Your task to perform on an android device: Open battery settings Image 0: 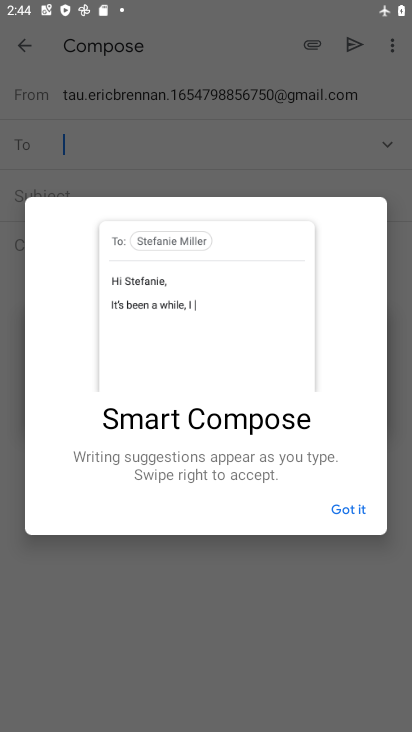
Step 0: press home button
Your task to perform on an android device: Open battery settings Image 1: 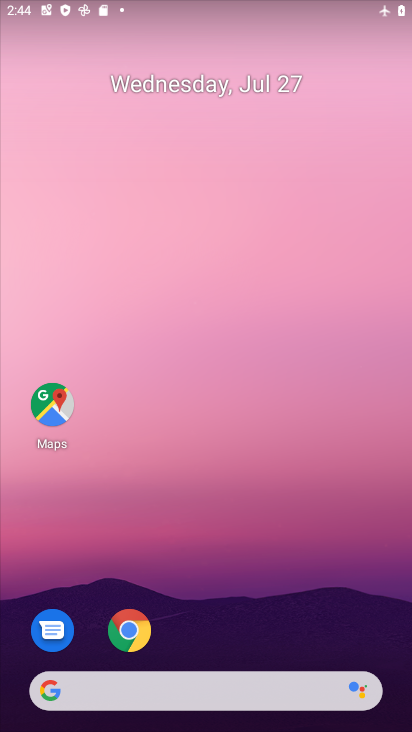
Step 1: drag from (396, 702) to (284, 151)
Your task to perform on an android device: Open battery settings Image 2: 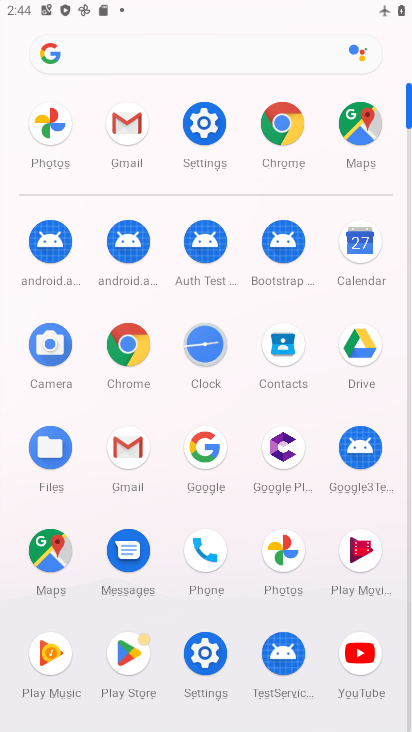
Step 2: click (207, 643)
Your task to perform on an android device: Open battery settings Image 3: 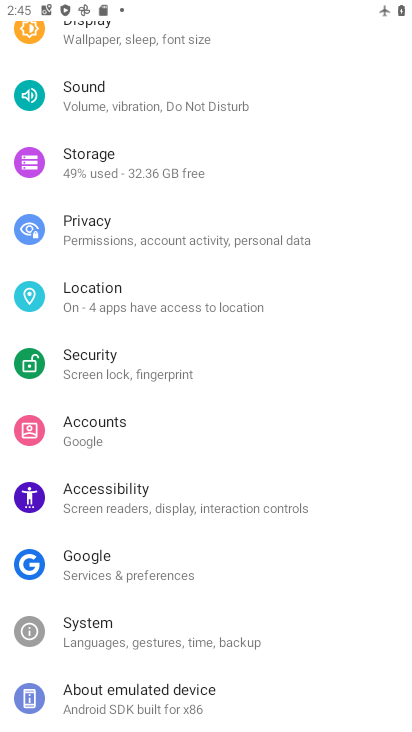
Step 3: drag from (330, 579) to (297, 298)
Your task to perform on an android device: Open battery settings Image 4: 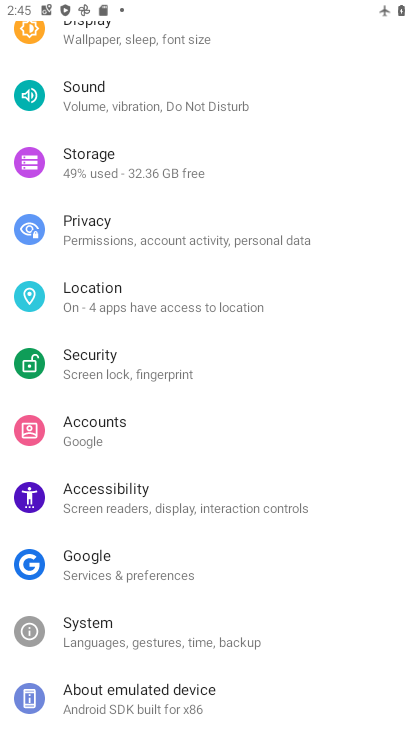
Step 4: drag from (328, 153) to (340, 566)
Your task to perform on an android device: Open battery settings Image 5: 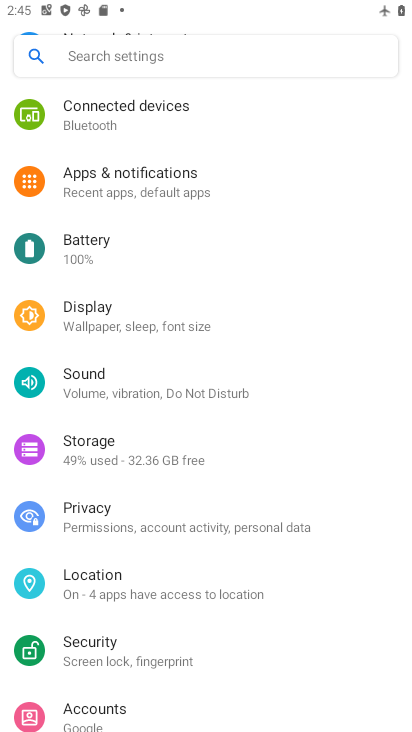
Step 5: click (77, 238)
Your task to perform on an android device: Open battery settings Image 6: 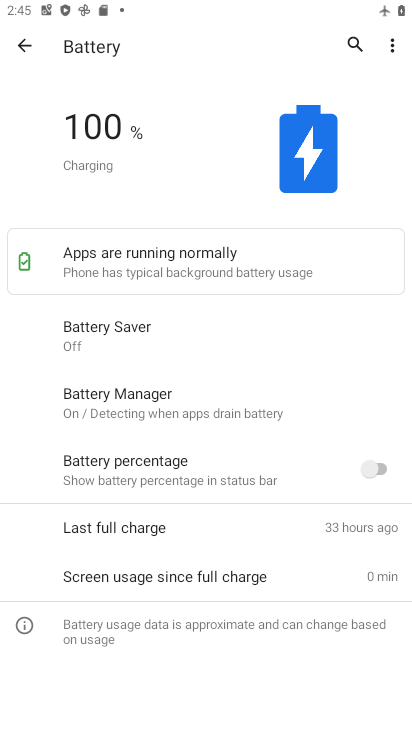
Step 6: task complete